Your task to perform on an android device: check storage Image 0: 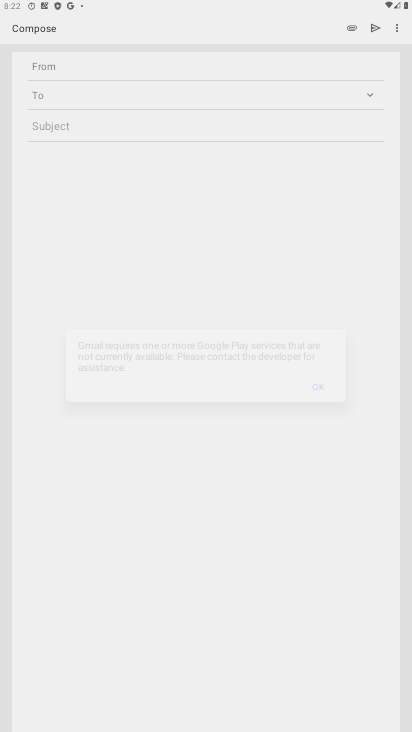
Step 0: click (103, 704)
Your task to perform on an android device: check storage Image 1: 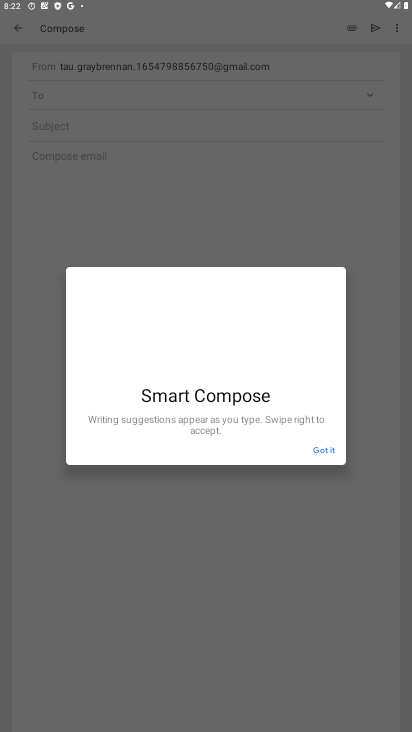
Step 1: press home button
Your task to perform on an android device: check storage Image 2: 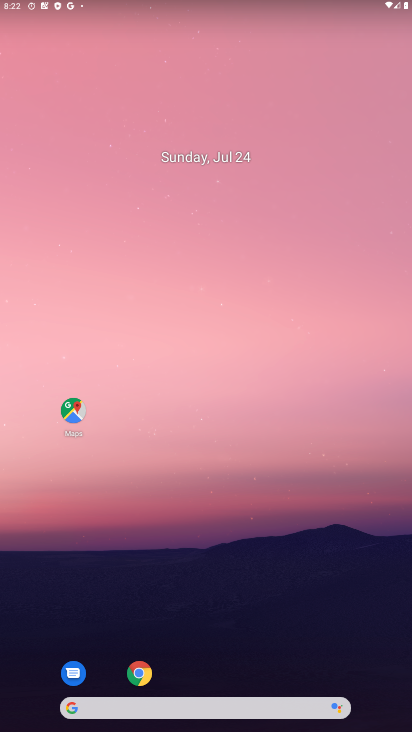
Step 2: drag from (40, 705) to (227, 296)
Your task to perform on an android device: check storage Image 3: 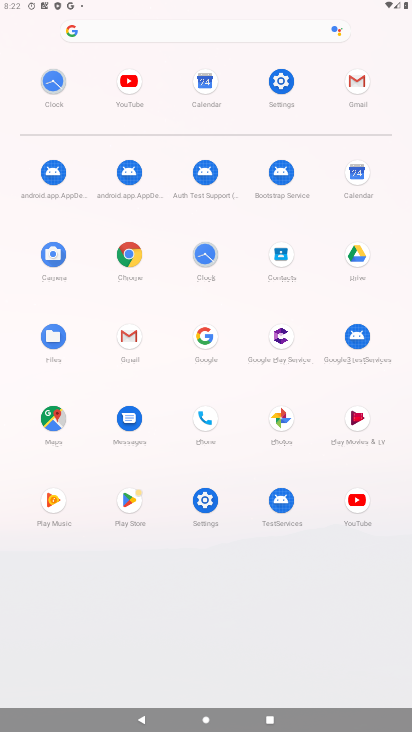
Step 3: click (209, 508)
Your task to perform on an android device: check storage Image 4: 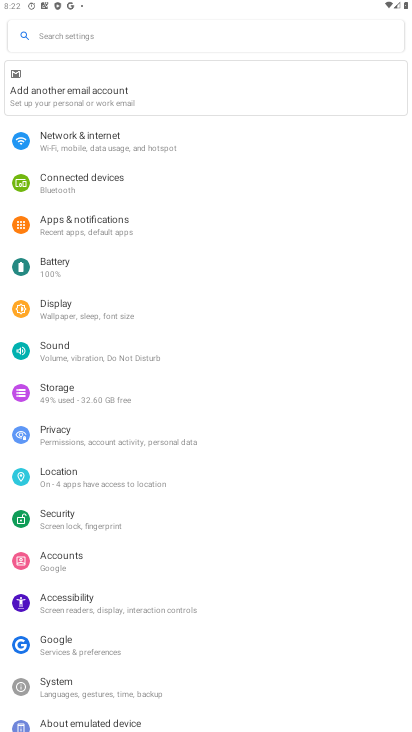
Step 4: click (56, 399)
Your task to perform on an android device: check storage Image 5: 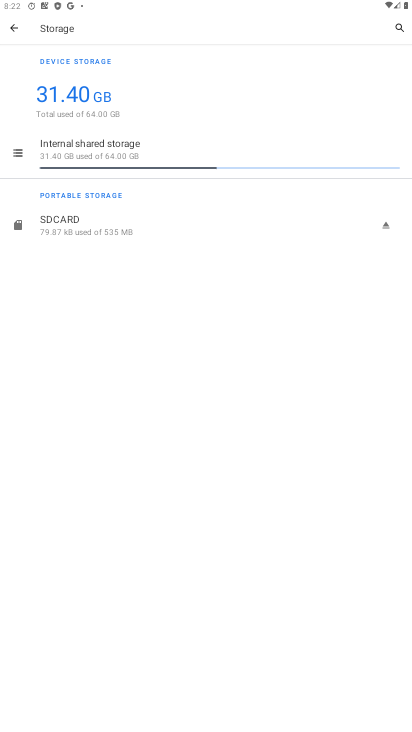
Step 5: task complete